Your task to perform on an android device: Check my email inbox Image 0: 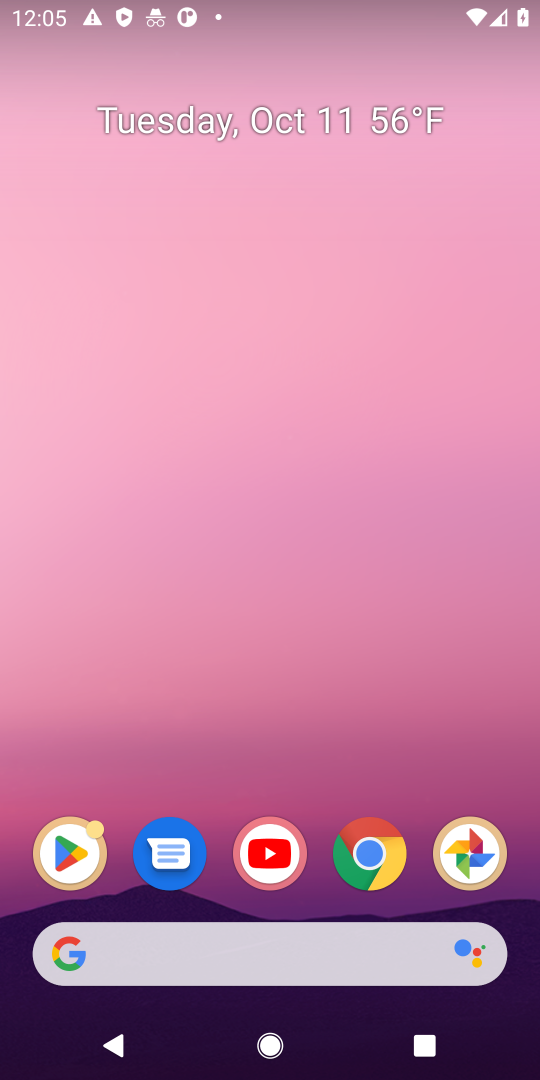
Step 0: drag from (345, 742) to (465, 10)
Your task to perform on an android device: Check my email inbox Image 1: 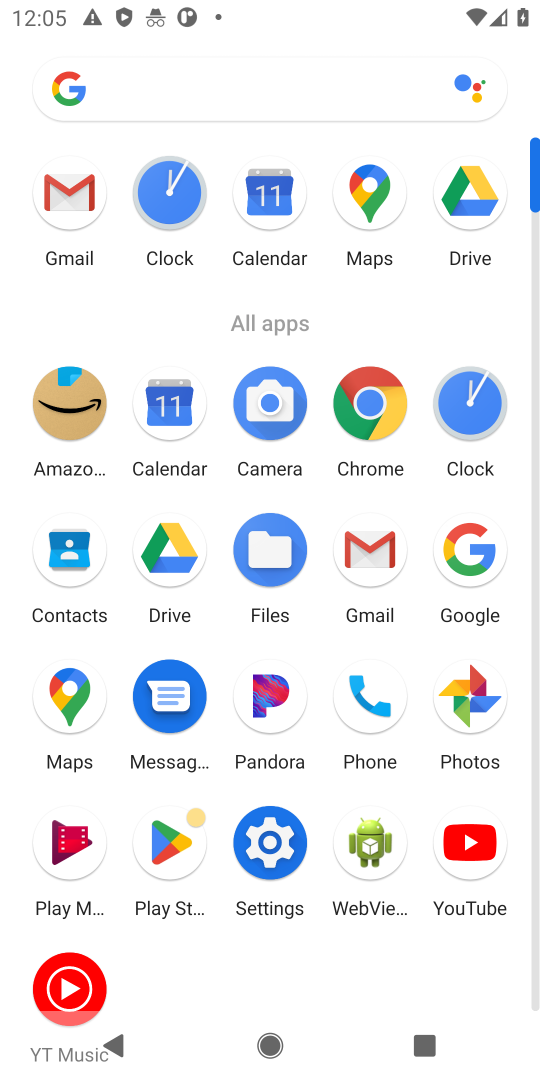
Step 1: click (374, 550)
Your task to perform on an android device: Check my email inbox Image 2: 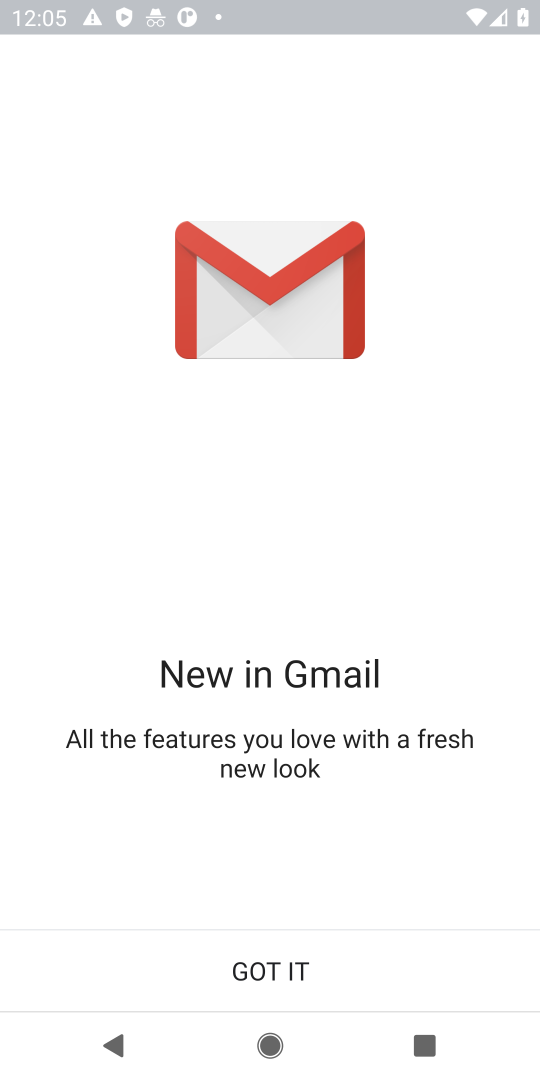
Step 2: click (260, 956)
Your task to perform on an android device: Check my email inbox Image 3: 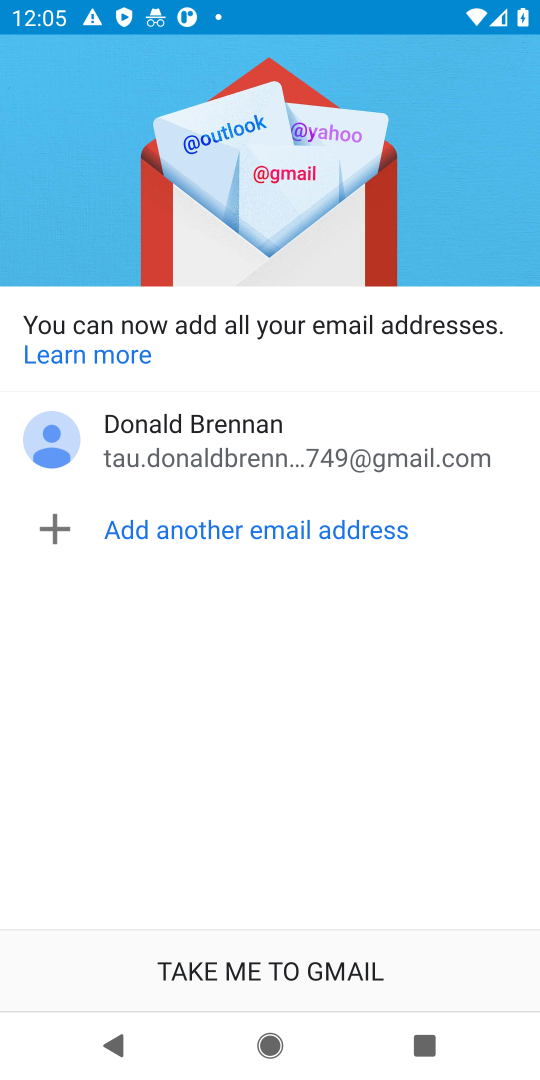
Step 3: click (246, 953)
Your task to perform on an android device: Check my email inbox Image 4: 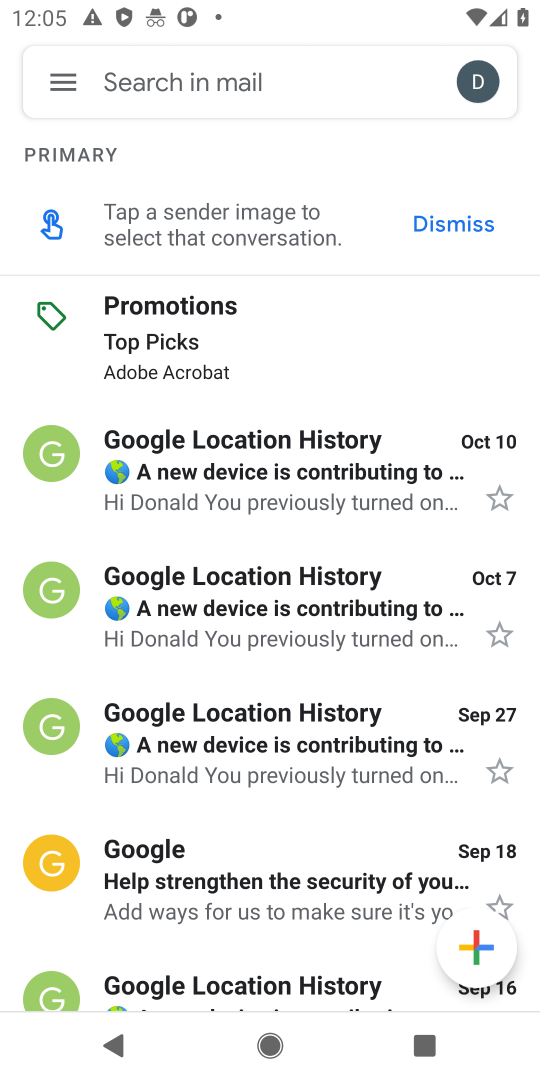
Step 4: click (71, 62)
Your task to perform on an android device: Check my email inbox Image 5: 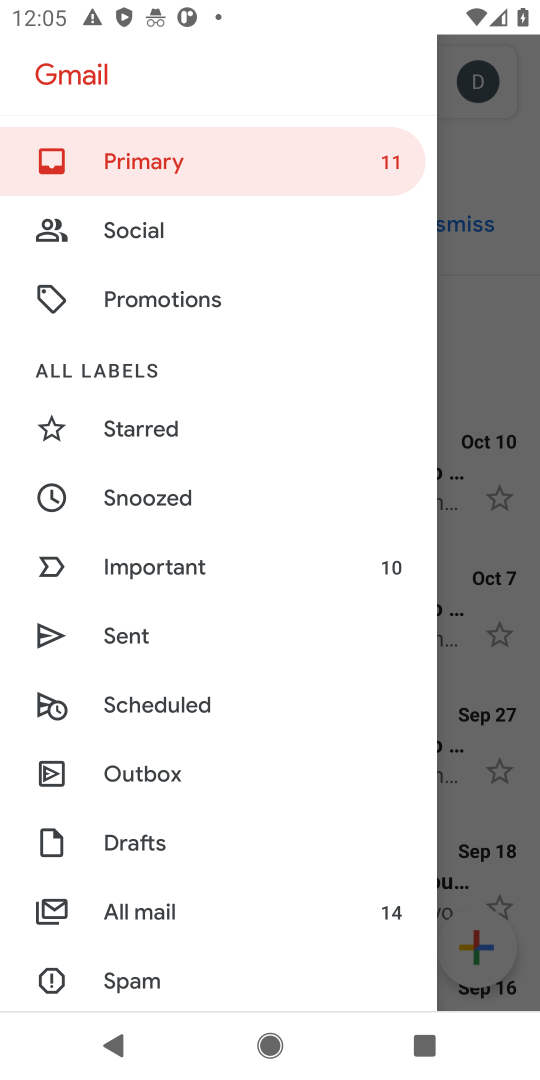
Step 5: drag from (226, 800) to (232, 391)
Your task to perform on an android device: Check my email inbox Image 6: 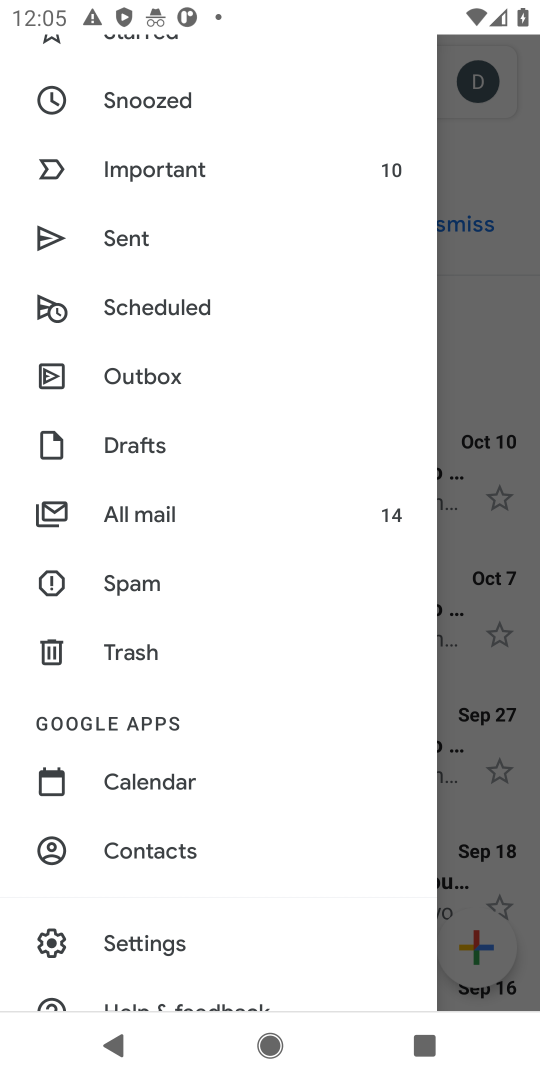
Step 6: drag from (253, 798) to (256, 439)
Your task to perform on an android device: Check my email inbox Image 7: 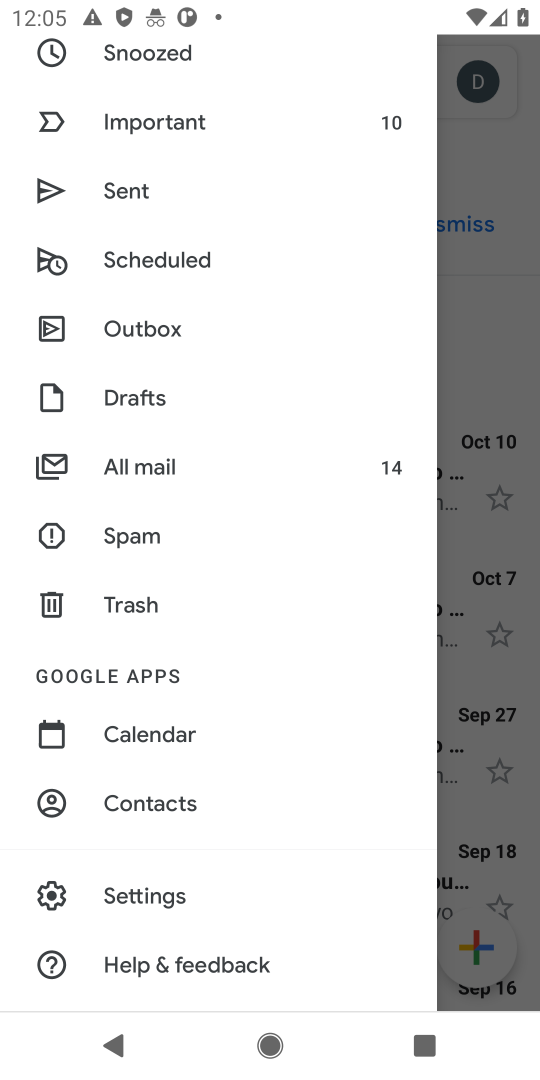
Step 7: drag from (294, 295) to (291, 932)
Your task to perform on an android device: Check my email inbox Image 8: 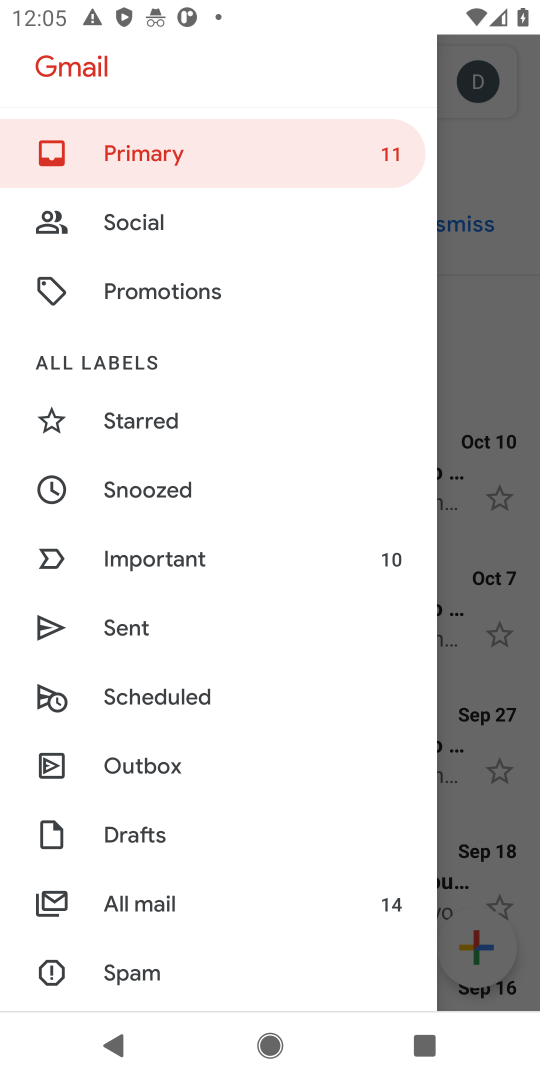
Step 8: click (212, 144)
Your task to perform on an android device: Check my email inbox Image 9: 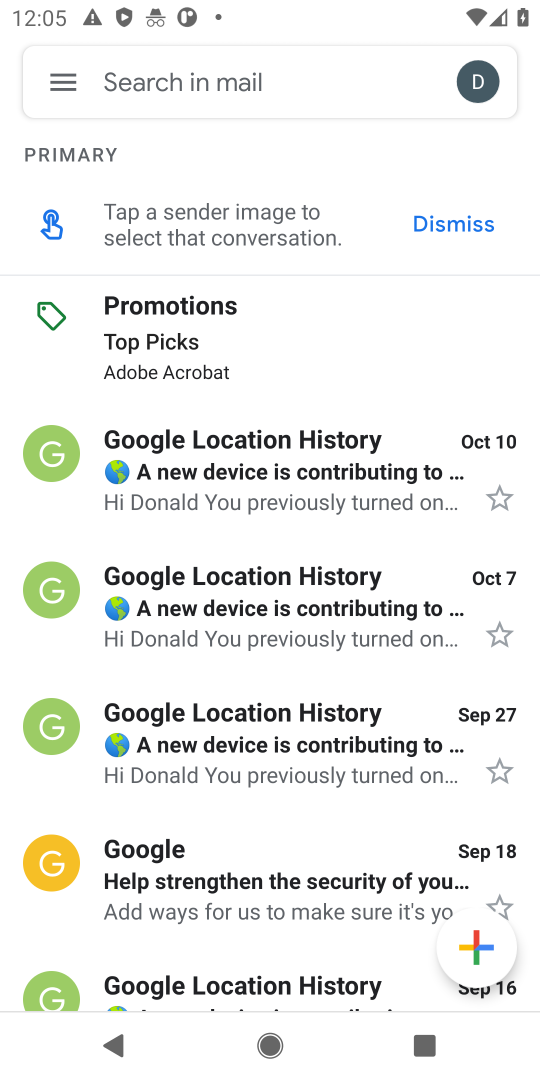
Step 9: click (62, 92)
Your task to perform on an android device: Check my email inbox Image 10: 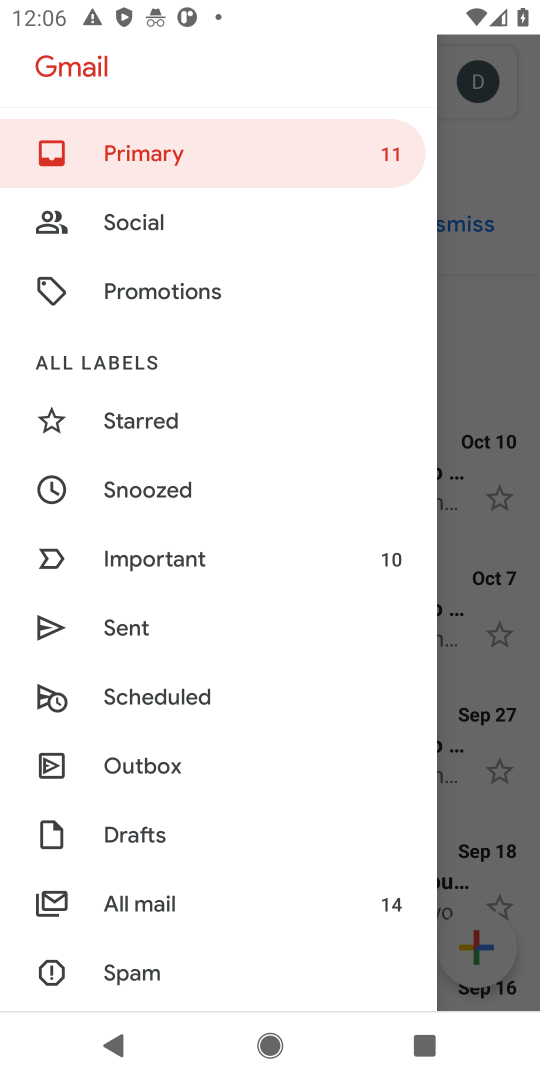
Step 10: task complete